Your task to perform on an android device: toggle sleep mode Image 0: 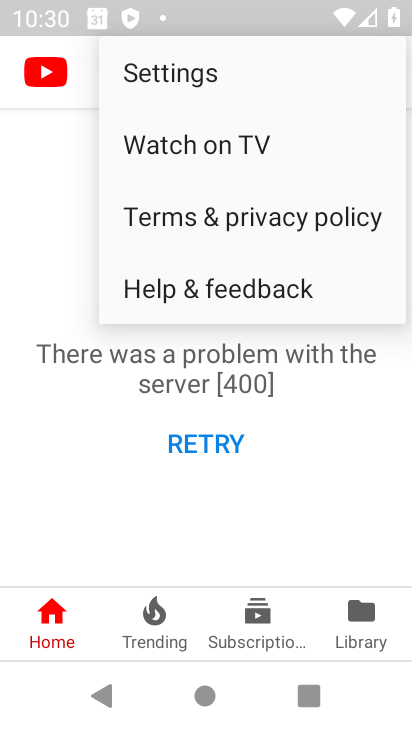
Step 0: press home button
Your task to perform on an android device: toggle sleep mode Image 1: 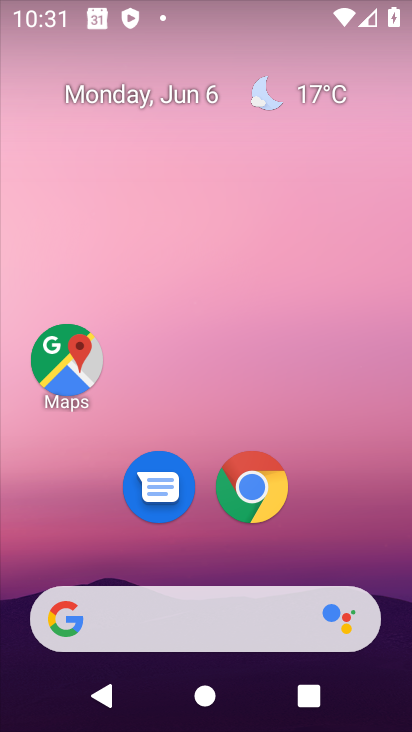
Step 1: drag from (204, 637) to (244, 167)
Your task to perform on an android device: toggle sleep mode Image 2: 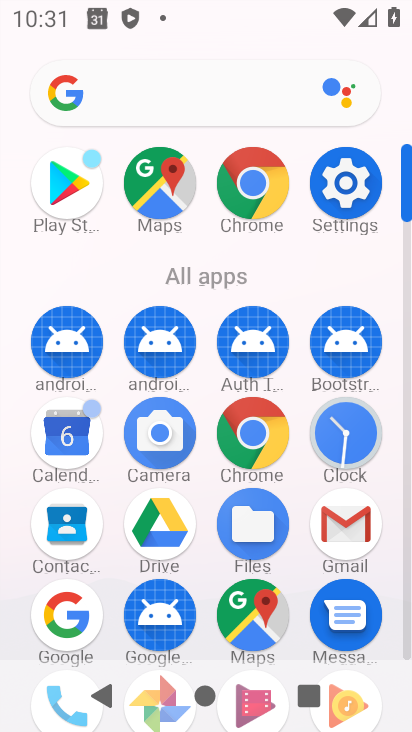
Step 2: click (373, 200)
Your task to perform on an android device: toggle sleep mode Image 3: 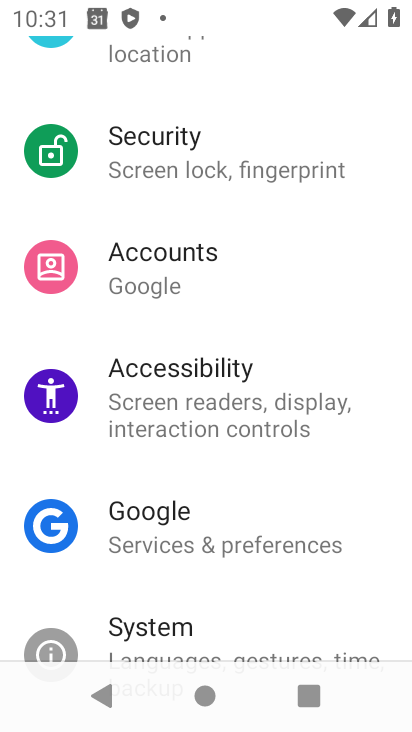
Step 3: drag from (201, 14) to (213, 718)
Your task to perform on an android device: toggle sleep mode Image 4: 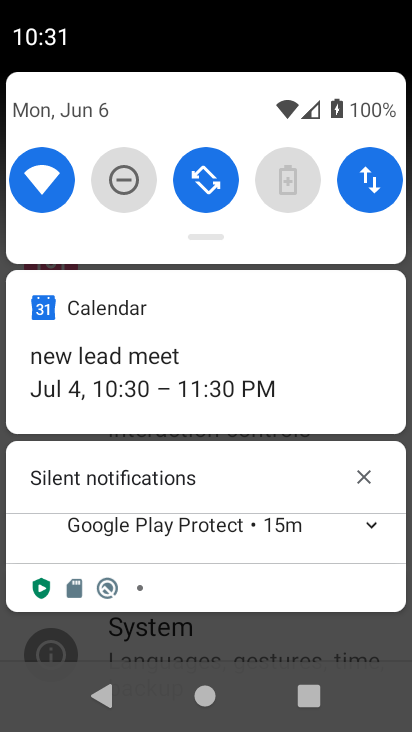
Step 4: drag from (194, 262) to (215, 731)
Your task to perform on an android device: toggle sleep mode Image 5: 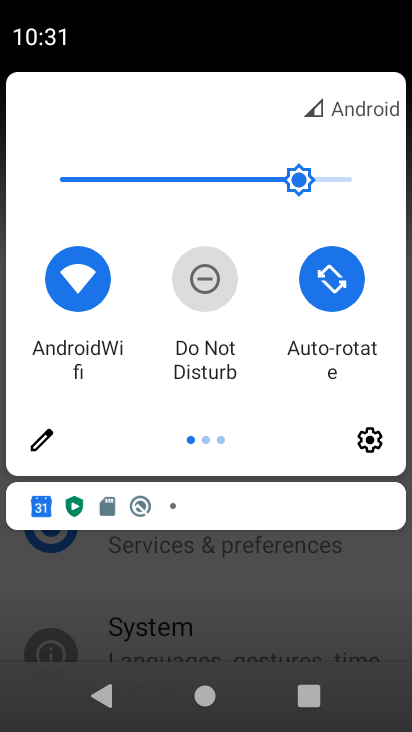
Step 5: click (28, 448)
Your task to perform on an android device: toggle sleep mode Image 6: 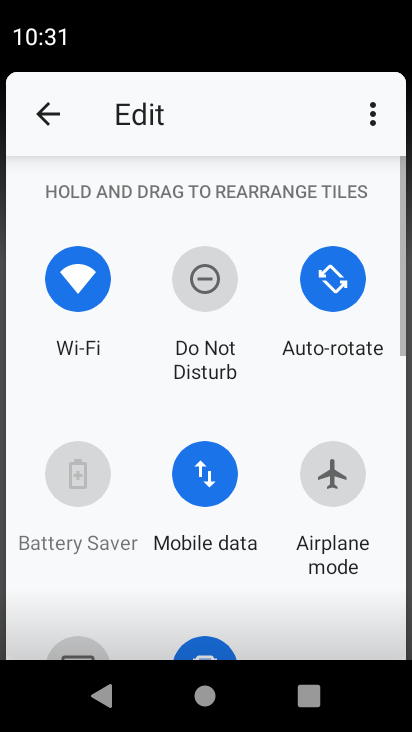
Step 6: task complete